Your task to perform on an android device: Show me recent news Image 0: 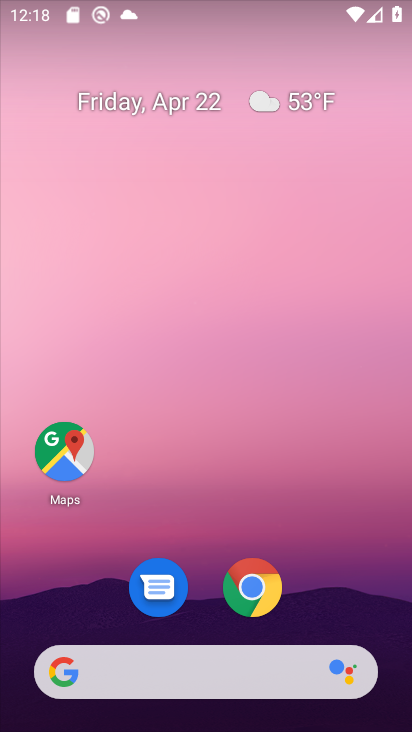
Step 0: drag from (350, 469) to (350, 60)
Your task to perform on an android device: Show me recent news Image 1: 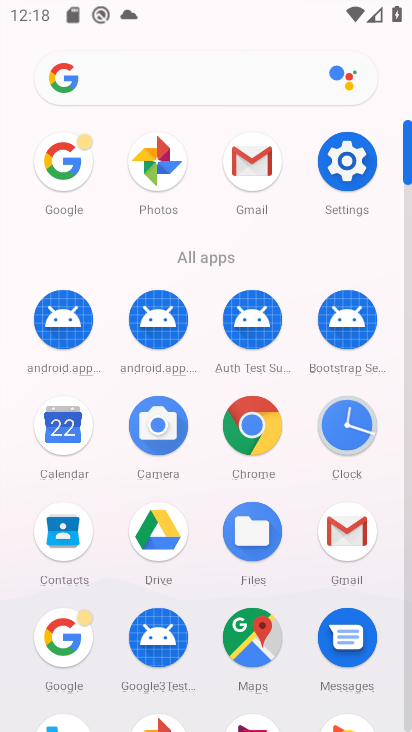
Step 1: drag from (299, 601) to (292, 268)
Your task to perform on an android device: Show me recent news Image 2: 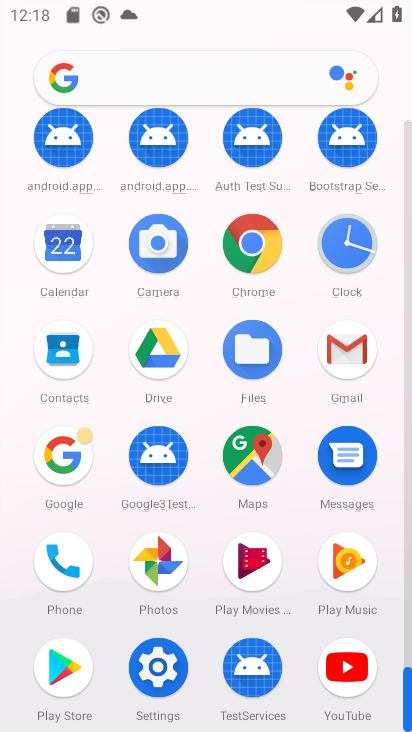
Step 2: click (256, 258)
Your task to perform on an android device: Show me recent news Image 3: 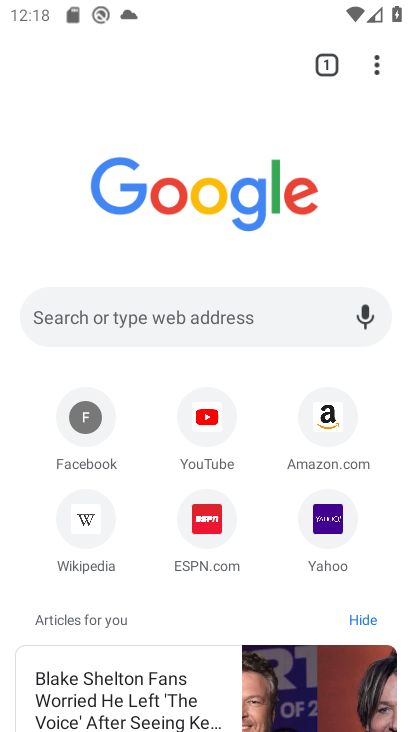
Step 3: click (220, 322)
Your task to perform on an android device: Show me recent news Image 4: 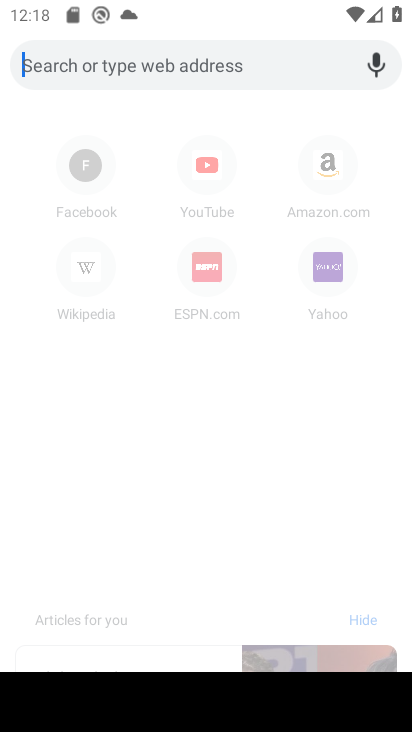
Step 4: type "recent news"
Your task to perform on an android device: Show me recent news Image 5: 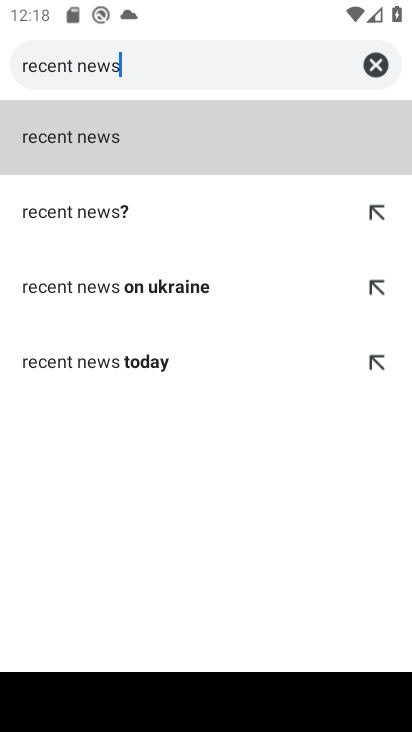
Step 5: click (45, 140)
Your task to perform on an android device: Show me recent news Image 6: 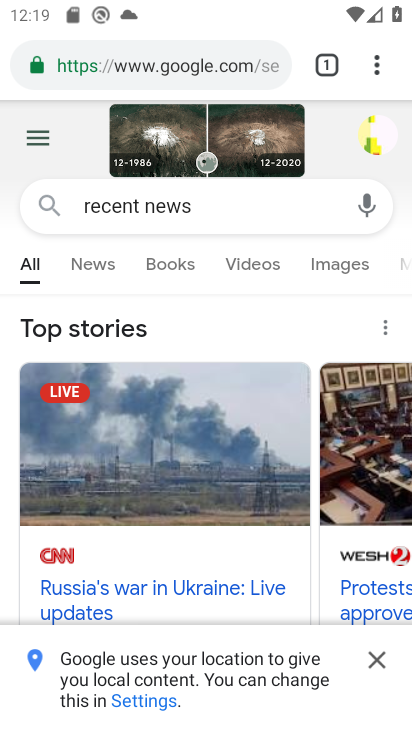
Step 6: task complete